Your task to perform on an android device: empty trash in google photos Image 0: 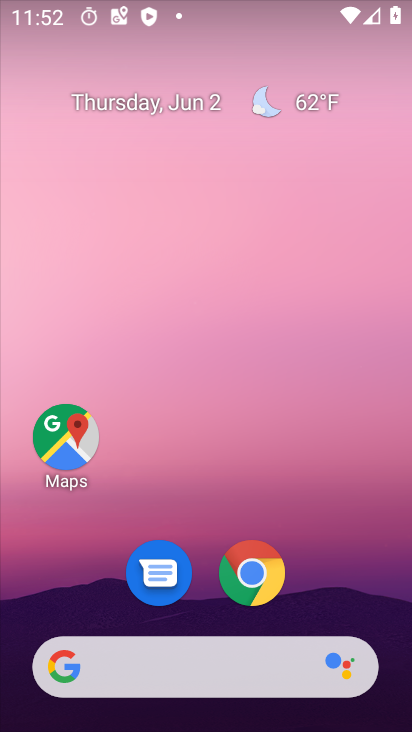
Step 0: drag from (258, 652) to (259, 6)
Your task to perform on an android device: empty trash in google photos Image 1: 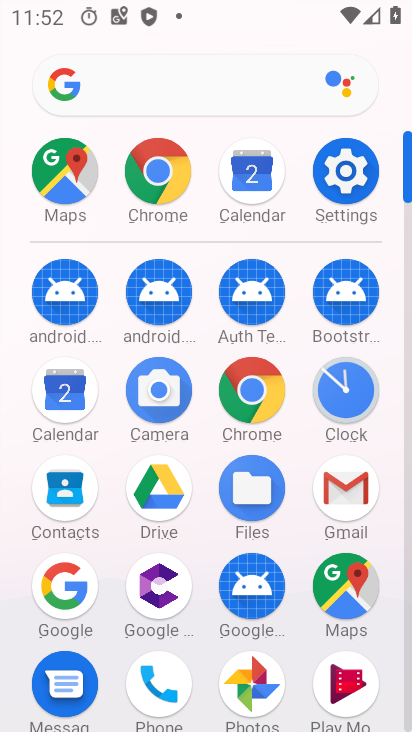
Step 1: click (254, 674)
Your task to perform on an android device: empty trash in google photos Image 2: 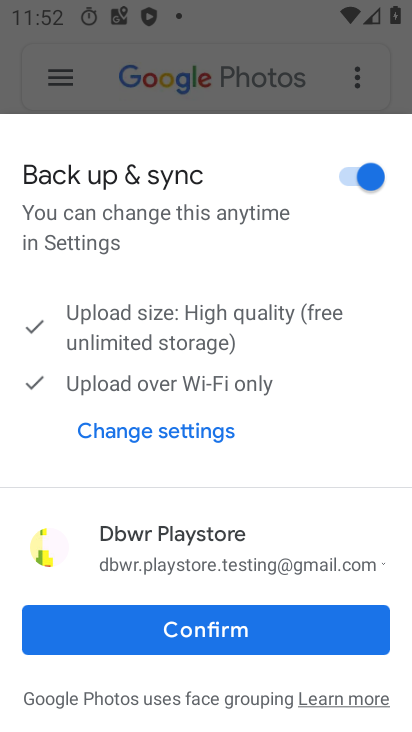
Step 2: click (277, 639)
Your task to perform on an android device: empty trash in google photos Image 3: 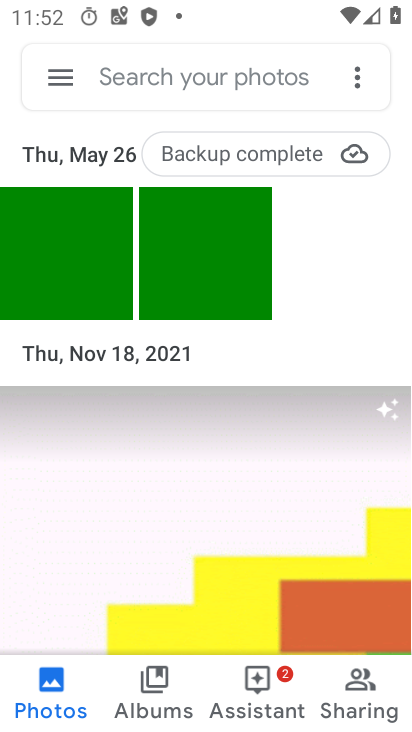
Step 3: click (58, 86)
Your task to perform on an android device: empty trash in google photos Image 4: 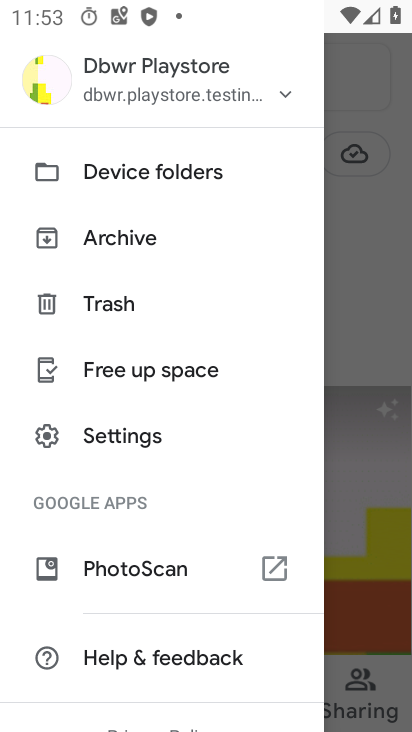
Step 4: click (161, 306)
Your task to perform on an android device: empty trash in google photos Image 5: 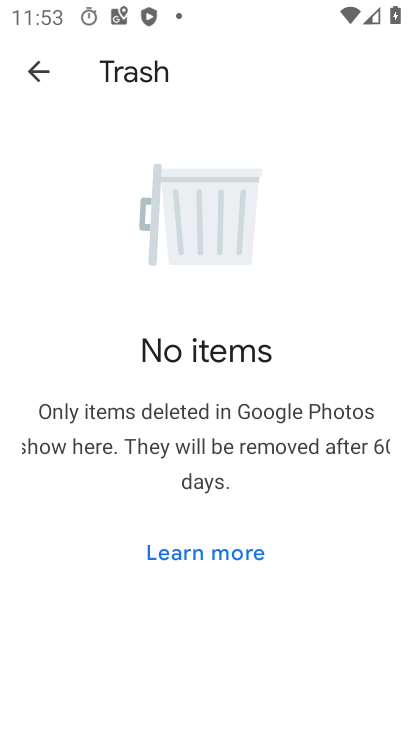
Step 5: task complete